Your task to perform on an android device: Open Youtube and go to the subscriptions tab Image 0: 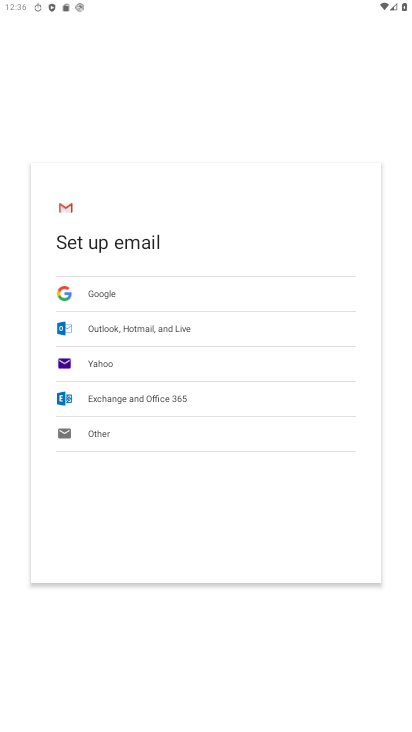
Step 0: press home button
Your task to perform on an android device: Open Youtube and go to the subscriptions tab Image 1: 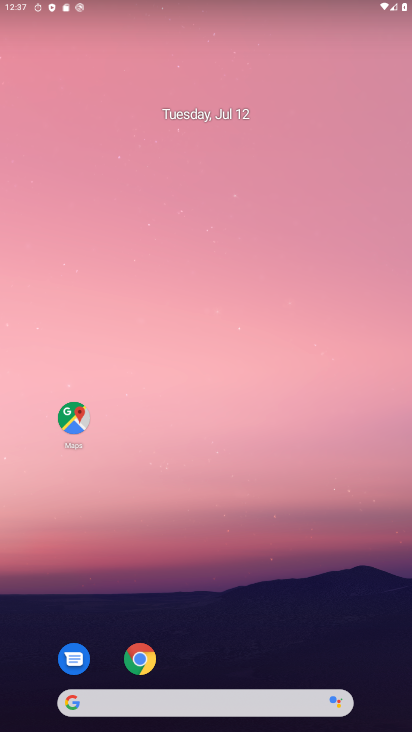
Step 1: drag from (227, 107) to (229, 31)
Your task to perform on an android device: Open Youtube and go to the subscriptions tab Image 2: 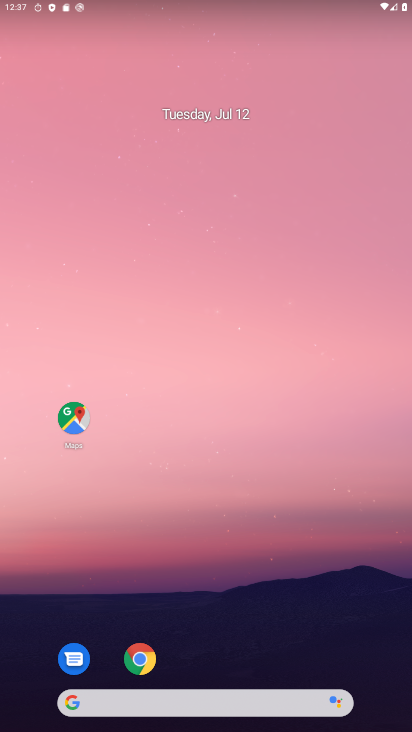
Step 2: drag from (295, 533) to (255, 90)
Your task to perform on an android device: Open Youtube and go to the subscriptions tab Image 3: 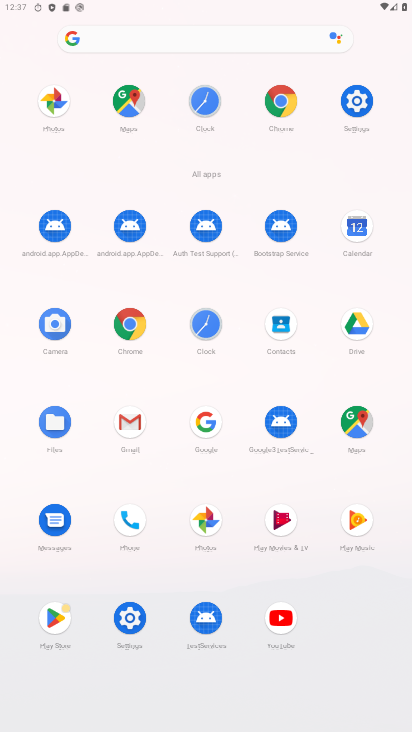
Step 3: click (288, 624)
Your task to perform on an android device: Open Youtube and go to the subscriptions tab Image 4: 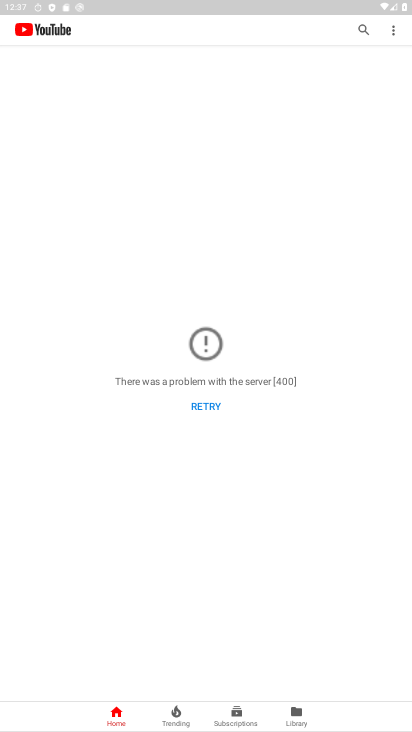
Step 4: task complete